Your task to perform on an android device: move an email to a new category in the gmail app Image 0: 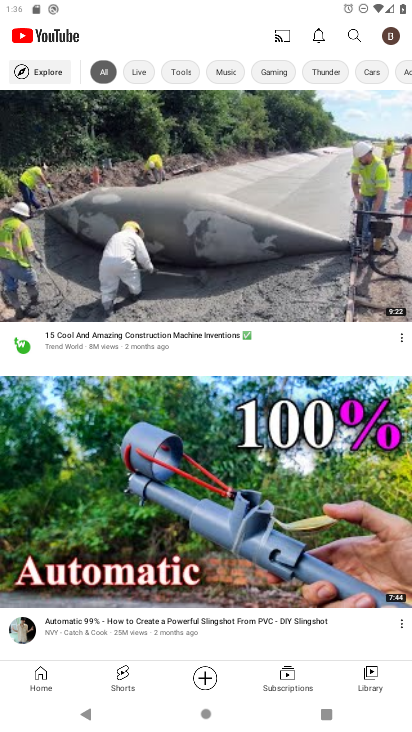
Step 0: press home button
Your task to perform on an android device: move an email to a new category in the gmail app Image 1: 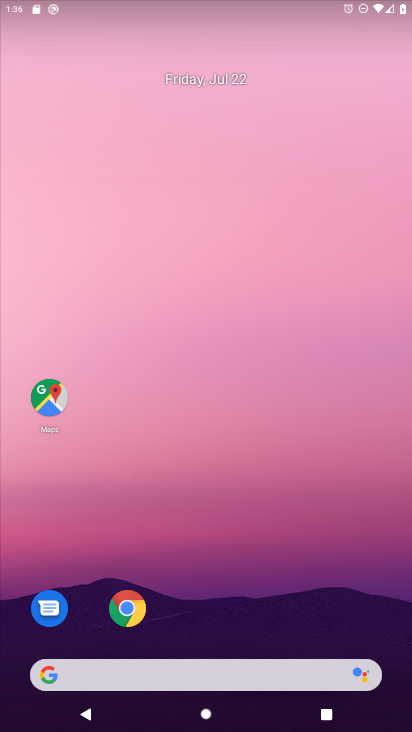
Step 1: drag from (318, 499) to (148, 22)
Your task to perform on an android device: move an email to a new category in the gmail app Image 2: 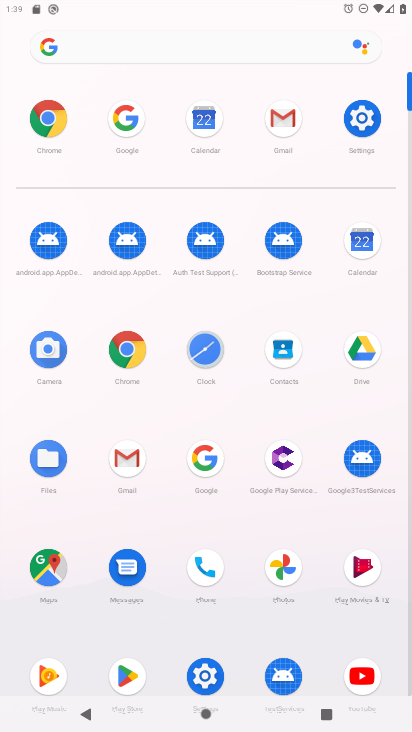
Step 2: click (126, 472)
Your task to perform on an android device: move an email to a new category in the gmail app Image 3: 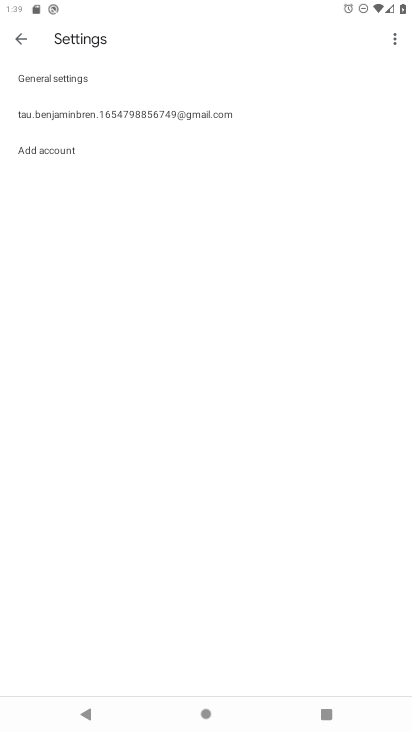
Step 3: task complete